Your task to perform on an android device: Do I have any events tomorrow? Image 0: 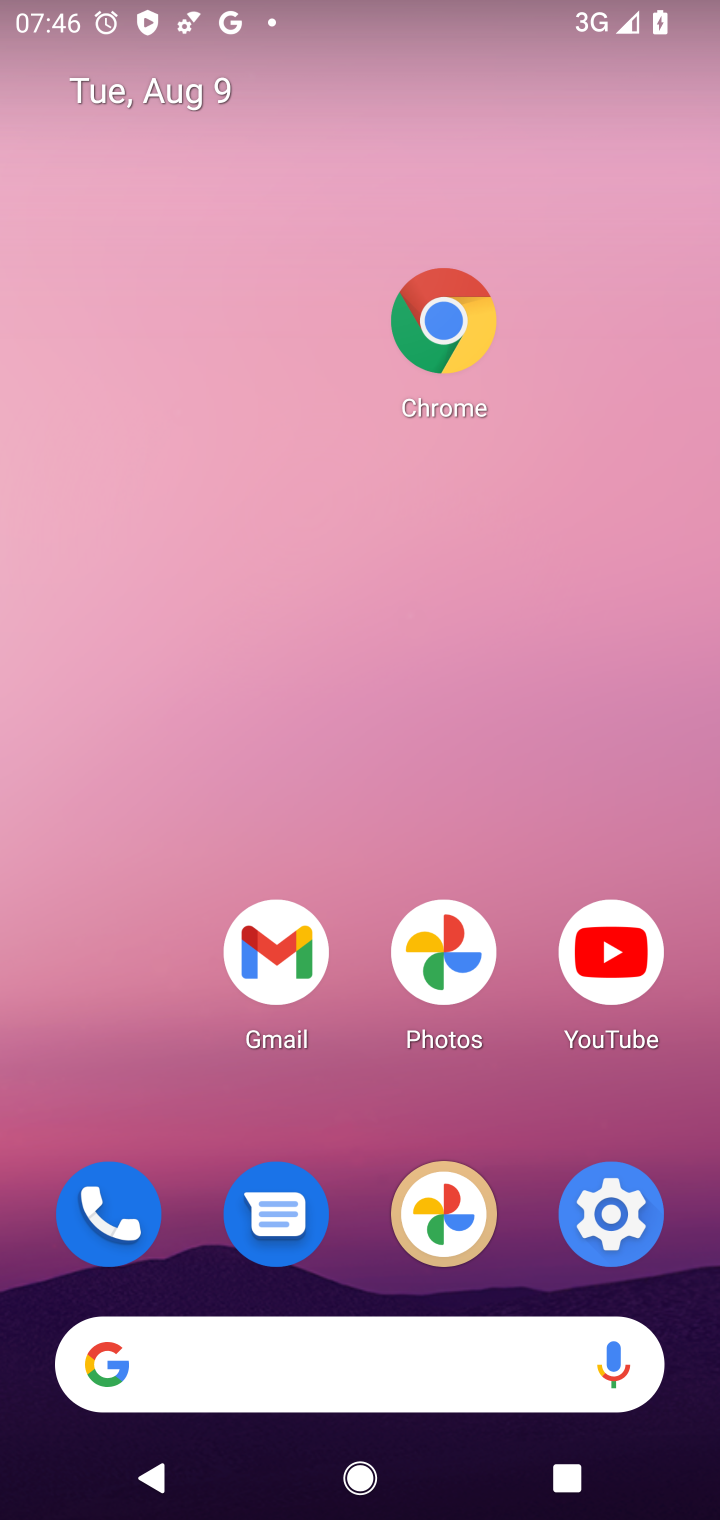
Step 0: press home button
Your task to perform on an android device: Do I have any events tomorrow? Image 1: 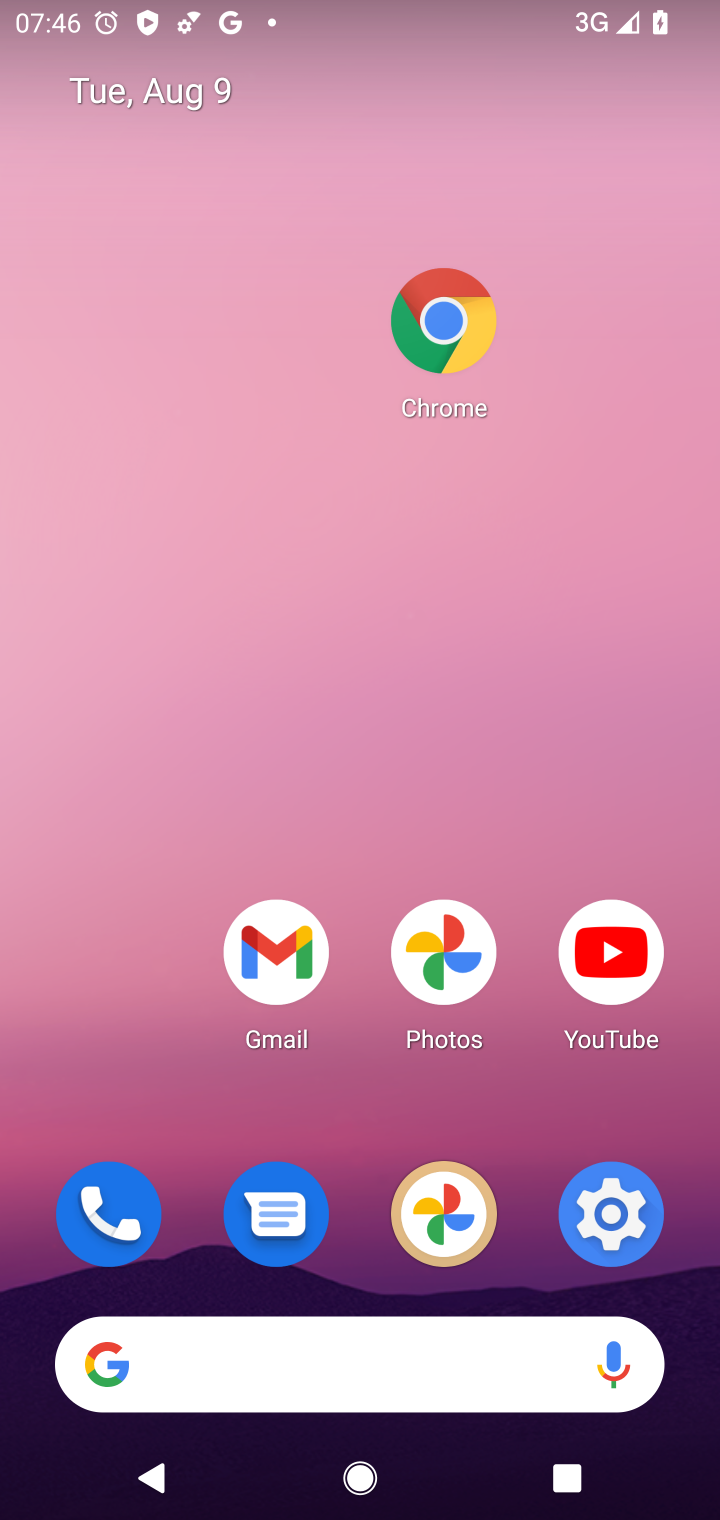
Step 1: drag from (393, 1481) to (479, 358)
Your task to perform on an android device: Do I have any events tomorrow? Image 2: 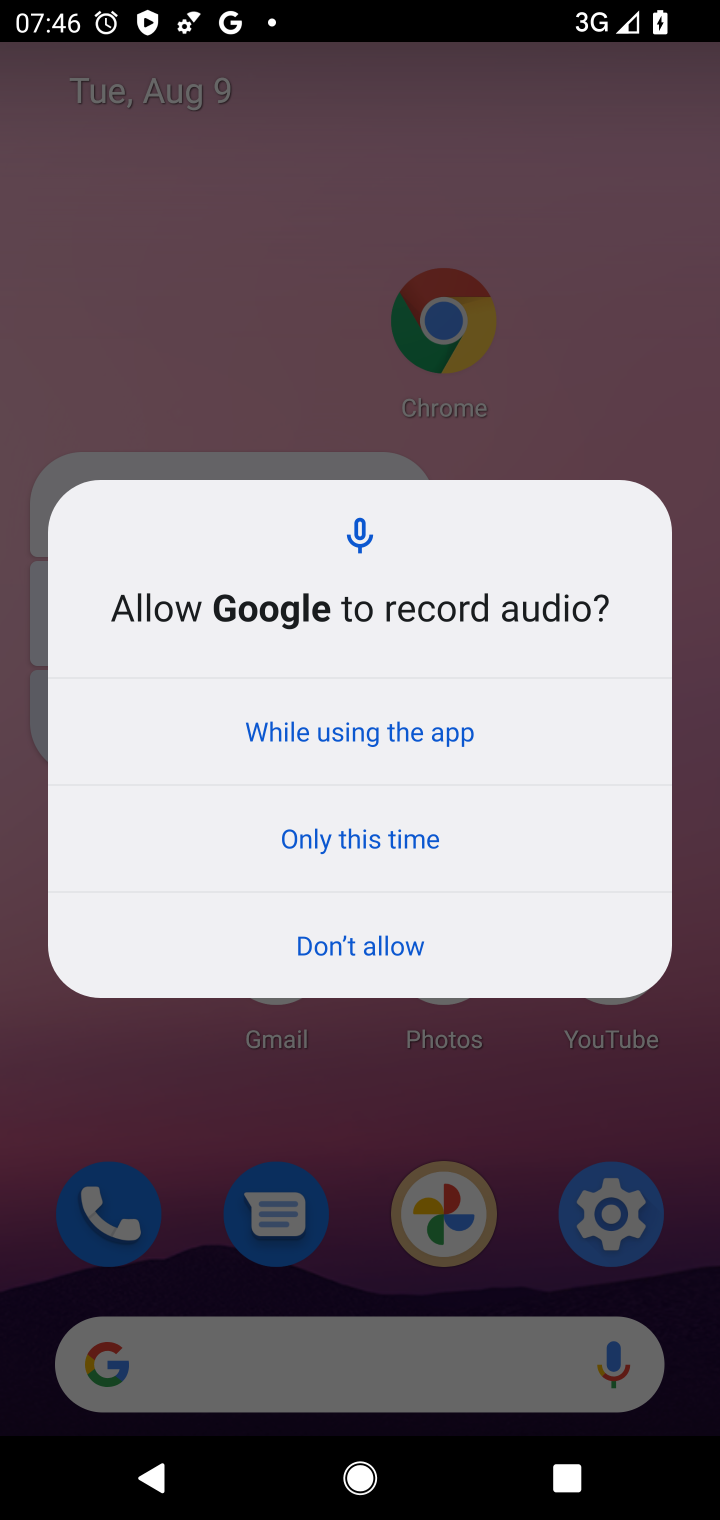
Step 2: click (503, 583)
Your task to perform on an android device: Do I have any events tomorrow? Image 3: 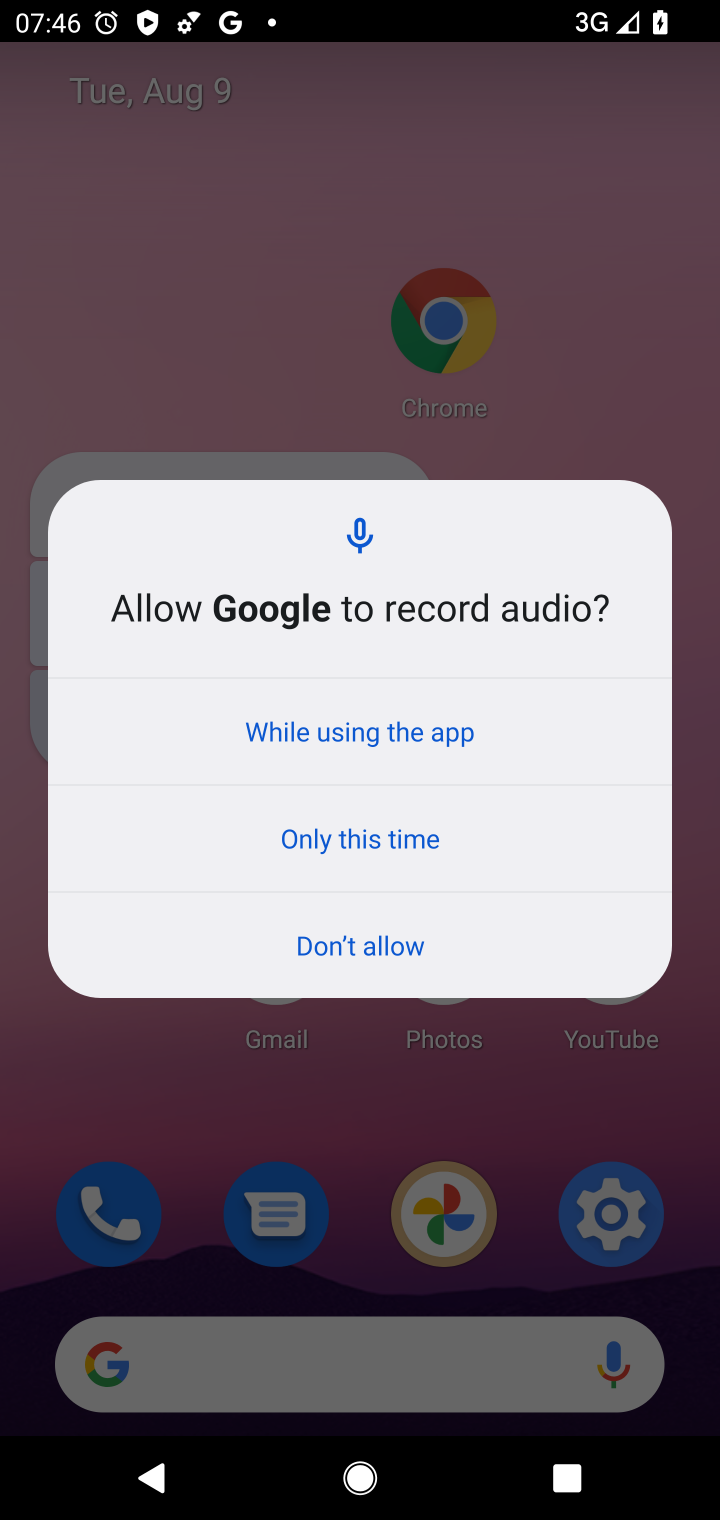
Step 3: click (320, 721)
Your task to perform on an android device: Do I have any events tomorrow? Image 4: 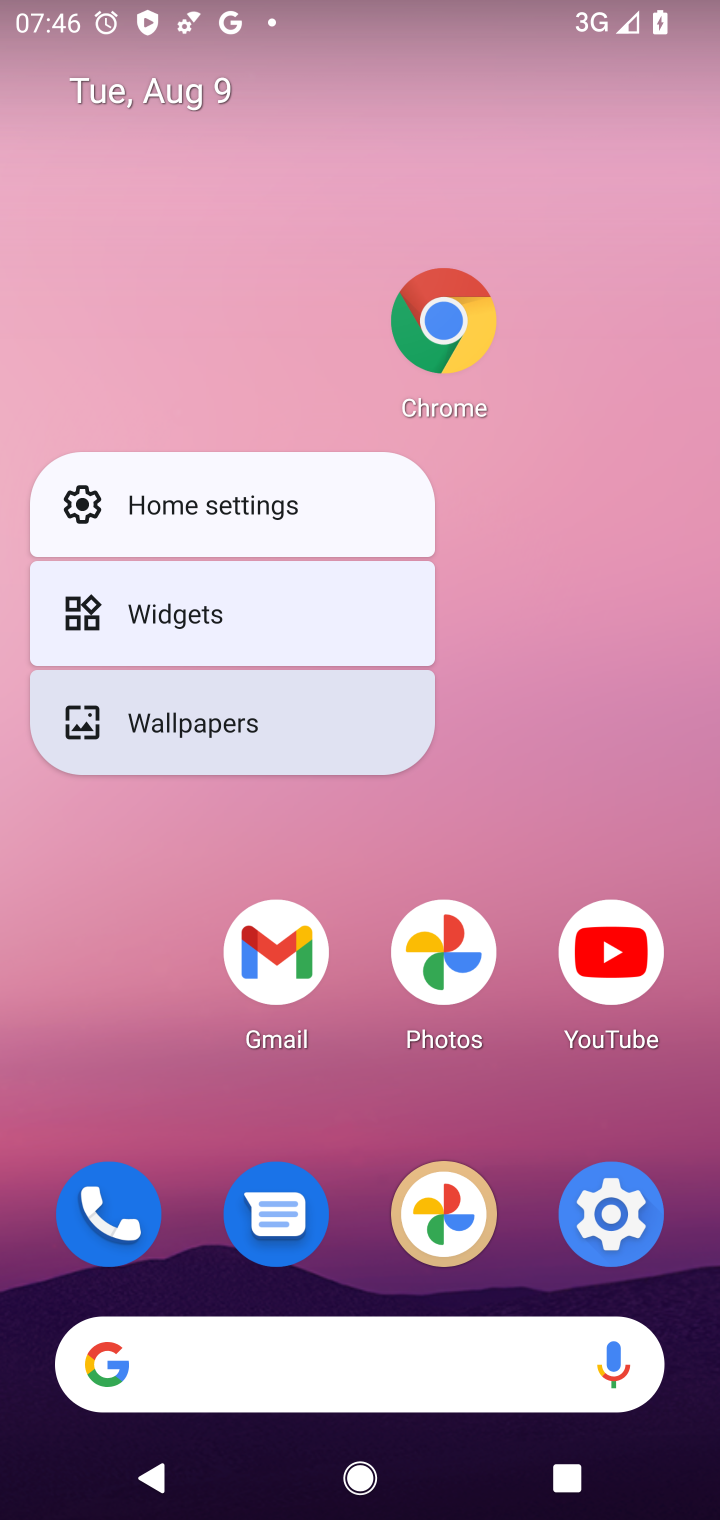
Step 4: click (83, 969)
Your task to perform on an android device: Do I have any events tomorrow? Image 5: 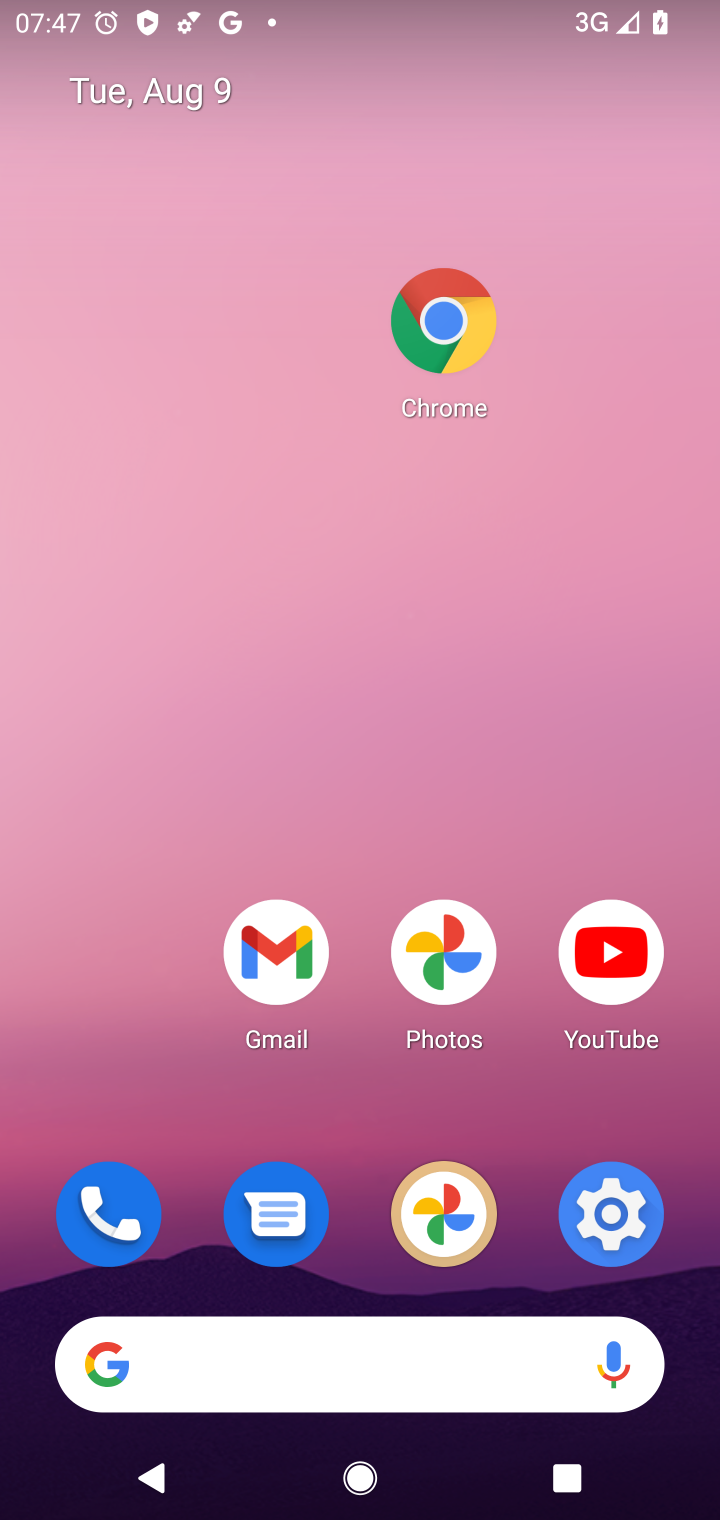
Step 5: drag from (419, 1420) to (497, 213)
Your task to perform on an android device: Do I have any events tomorrow? Image 6: 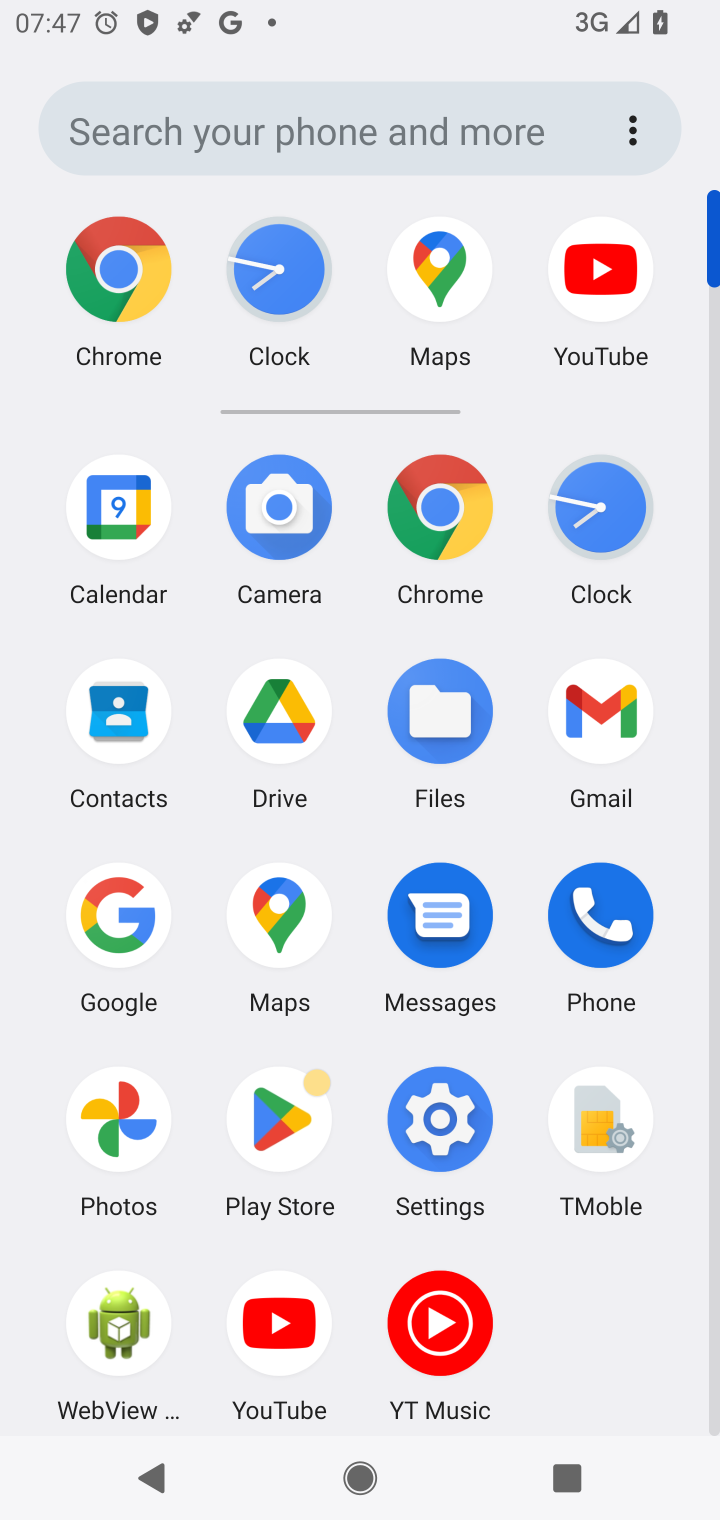
Step 6: click (123, 514)
Your task to perform on an android device: Do I have any events tomorrow? Image 7: 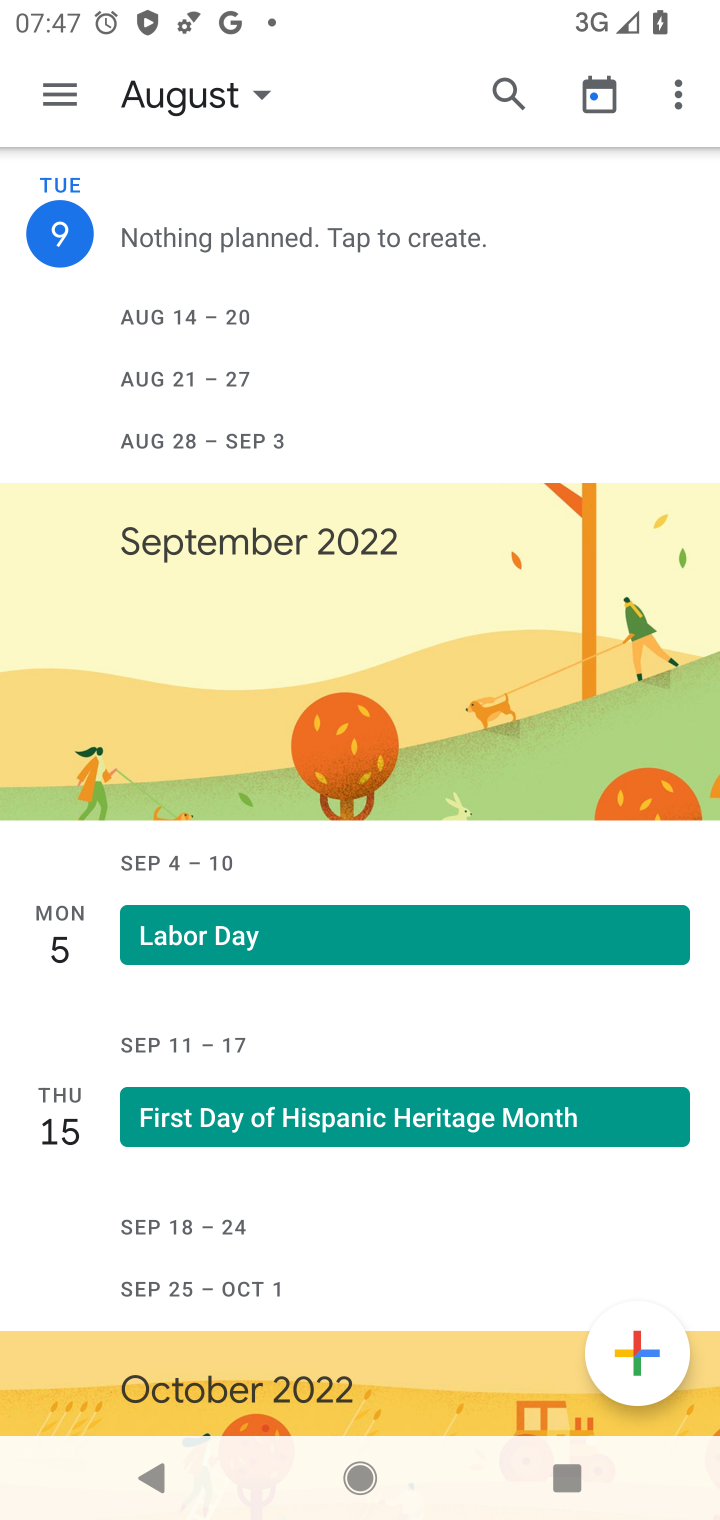
Step 7: click (55, 115)
Your task to perform on an android device: Do I have any events tomorrow? Image 8: 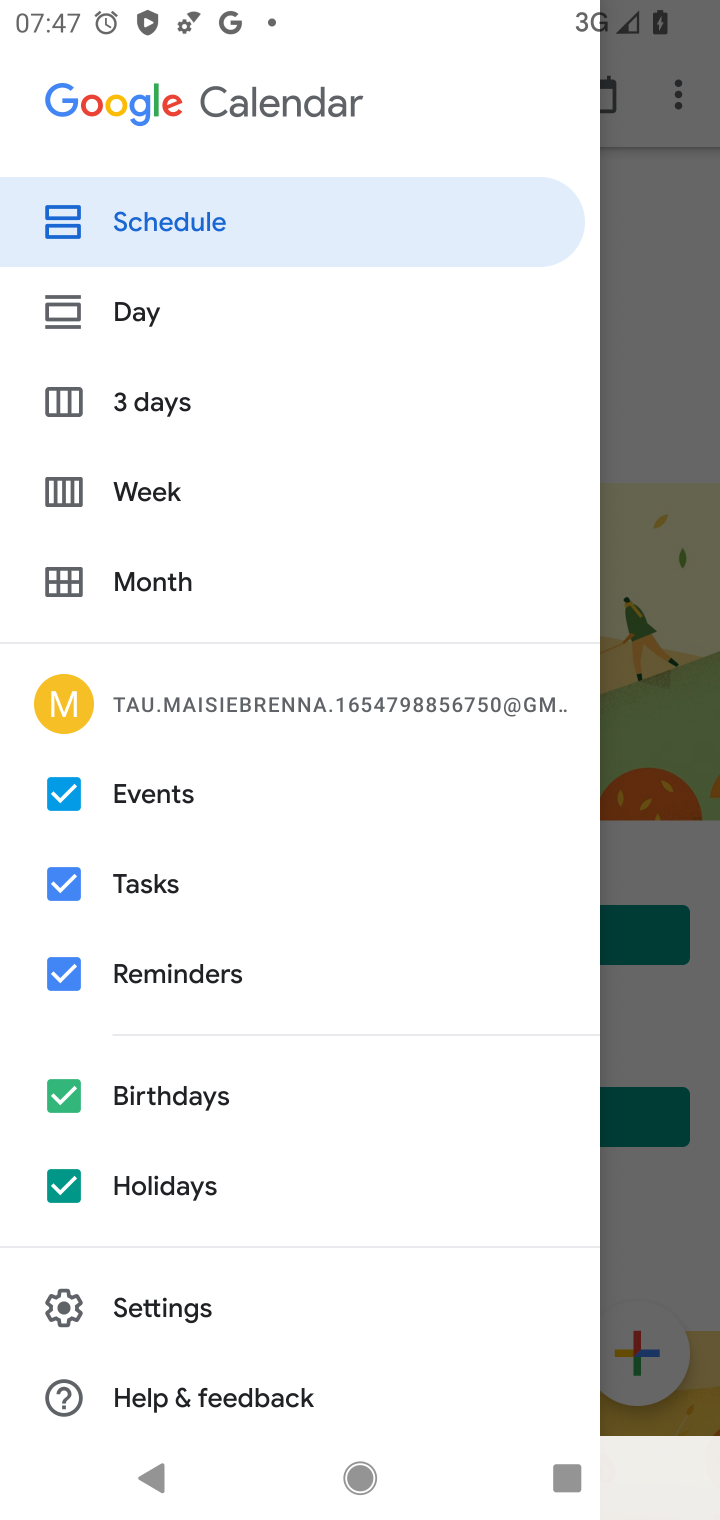
Step 8: click (156, 582)
Your task to perform on an android device: Do I have any events tomorrow? Image 9: 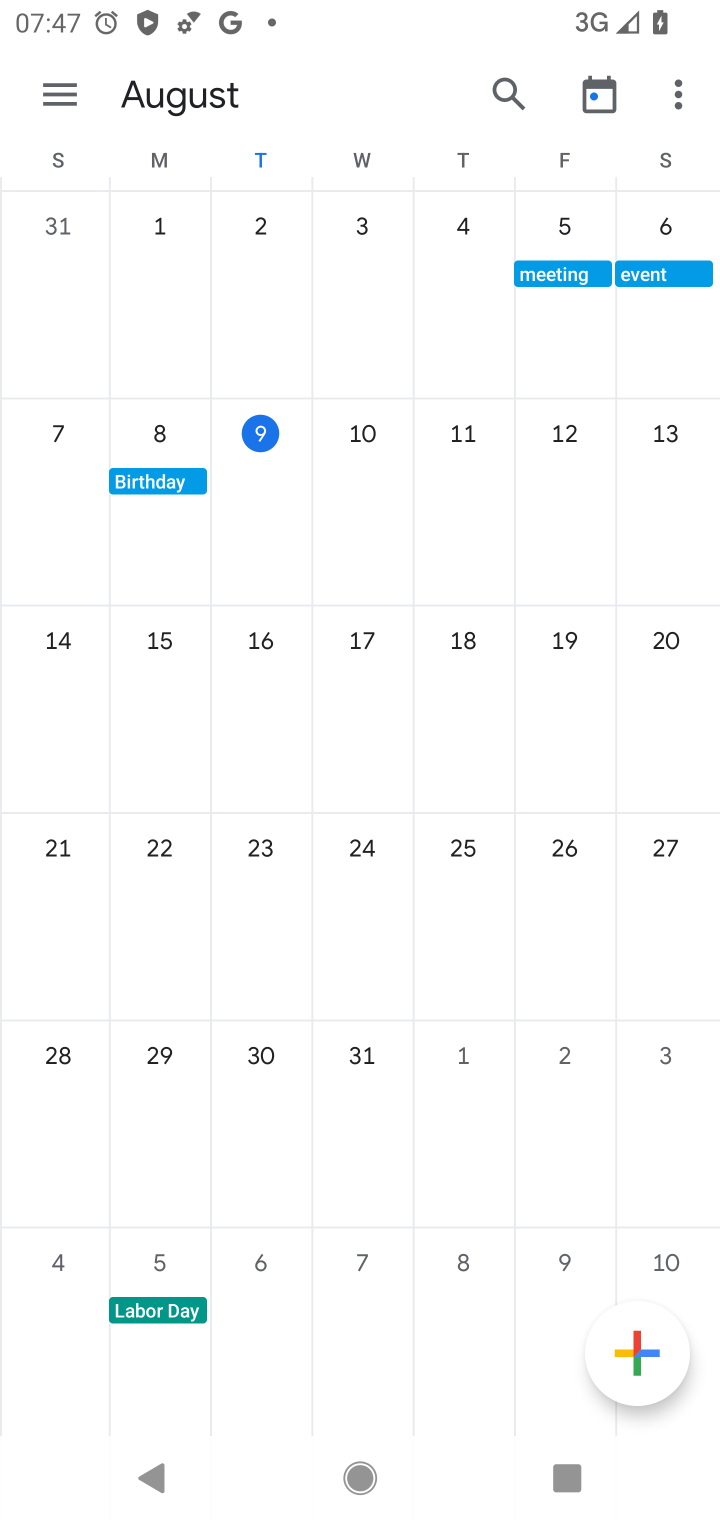
Step 9: click (372, 451)
Your task to perform on an android device: Do I have any events tomorrow? Image 10: 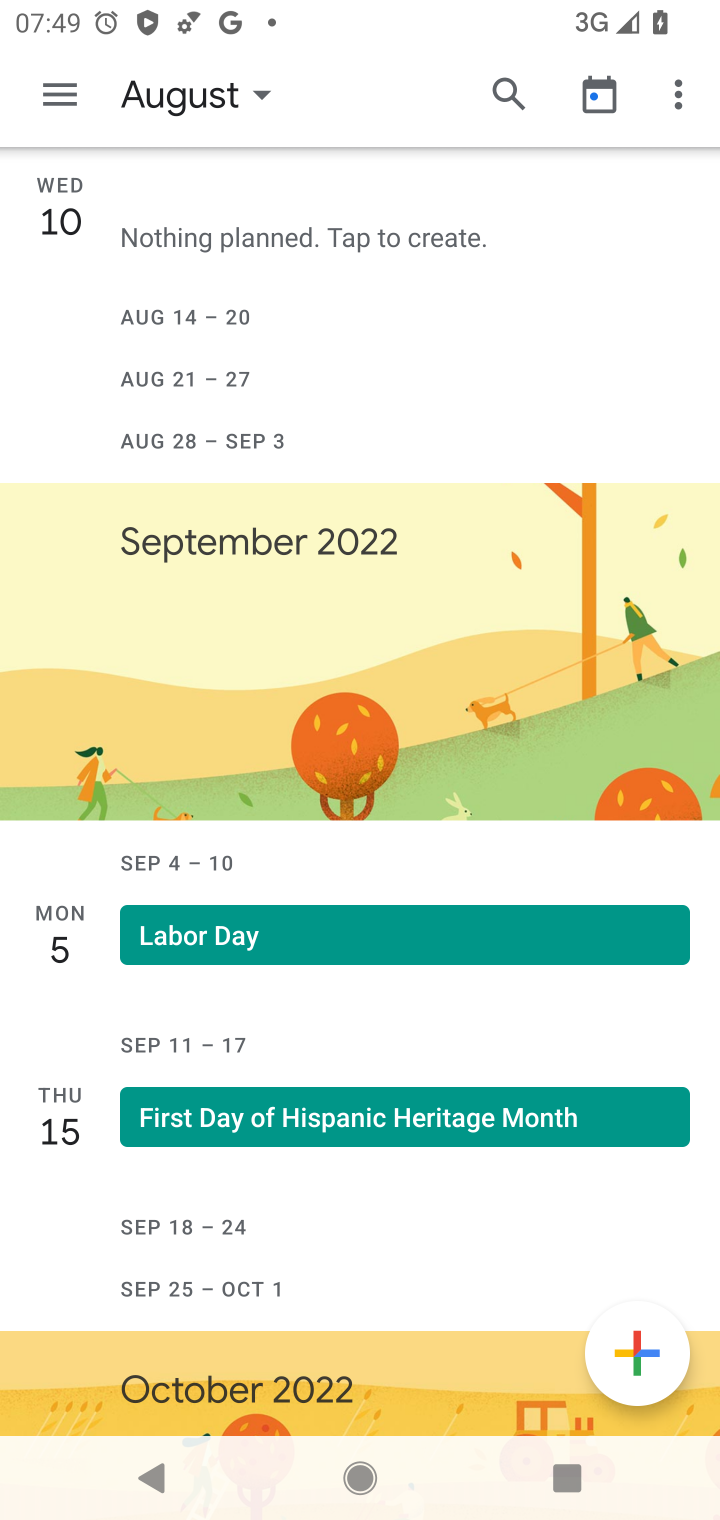
Step 10: task complete